Your task to perform on an android device: Open accessibility settings Image 0: 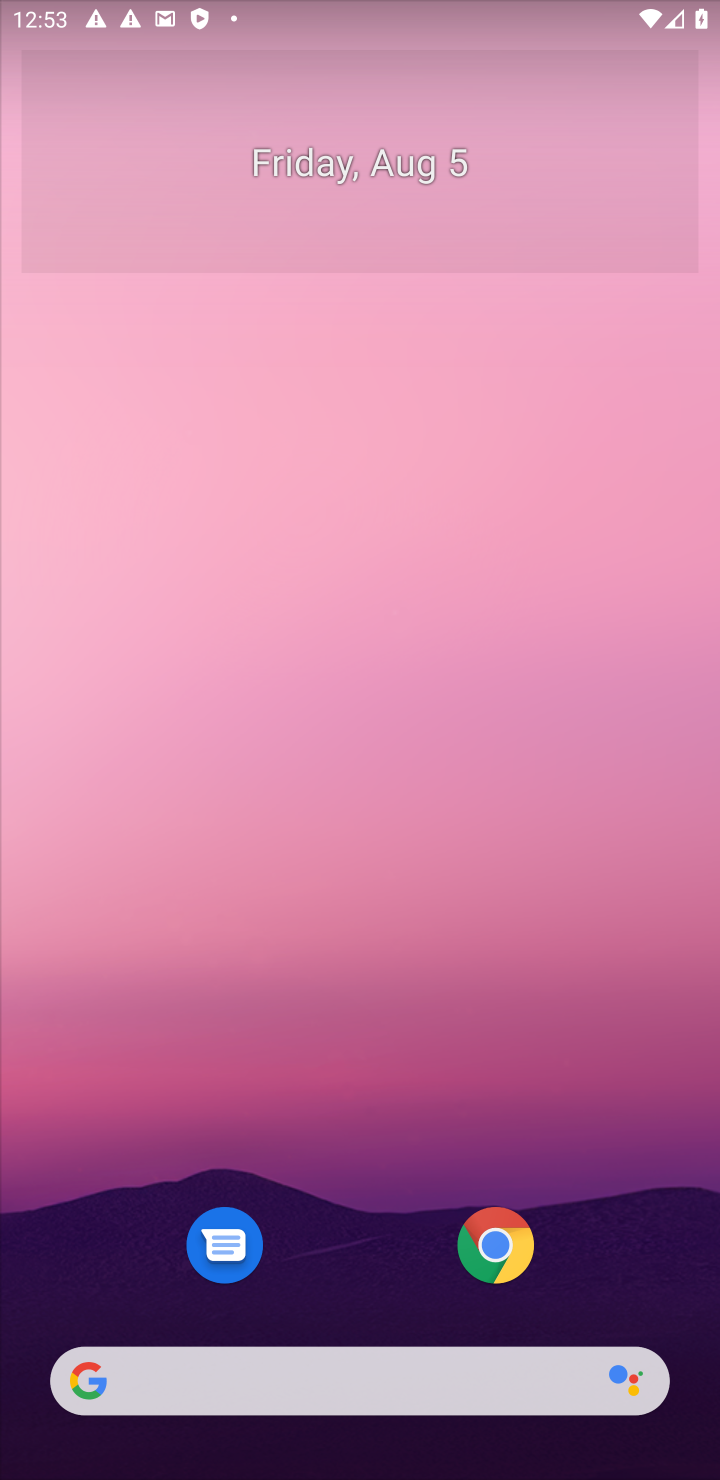
Step 0: drag from (367, 722) to (465, 170)
Your task to perform on an android device: Open accessibility settings Image 1: 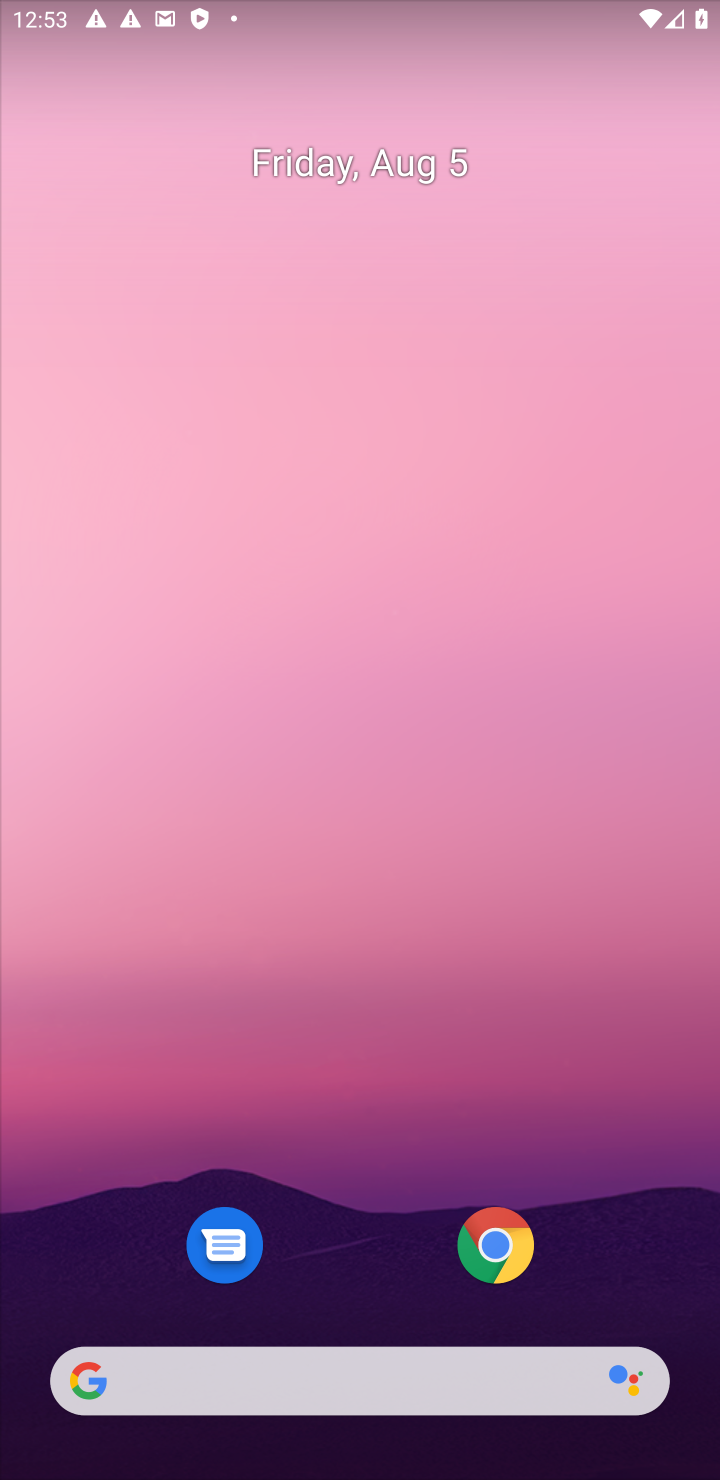
Step 1: drag from (413, 1272) to (367, 282)
Your task to perform on an android device: Open accessibility settings Image 2: 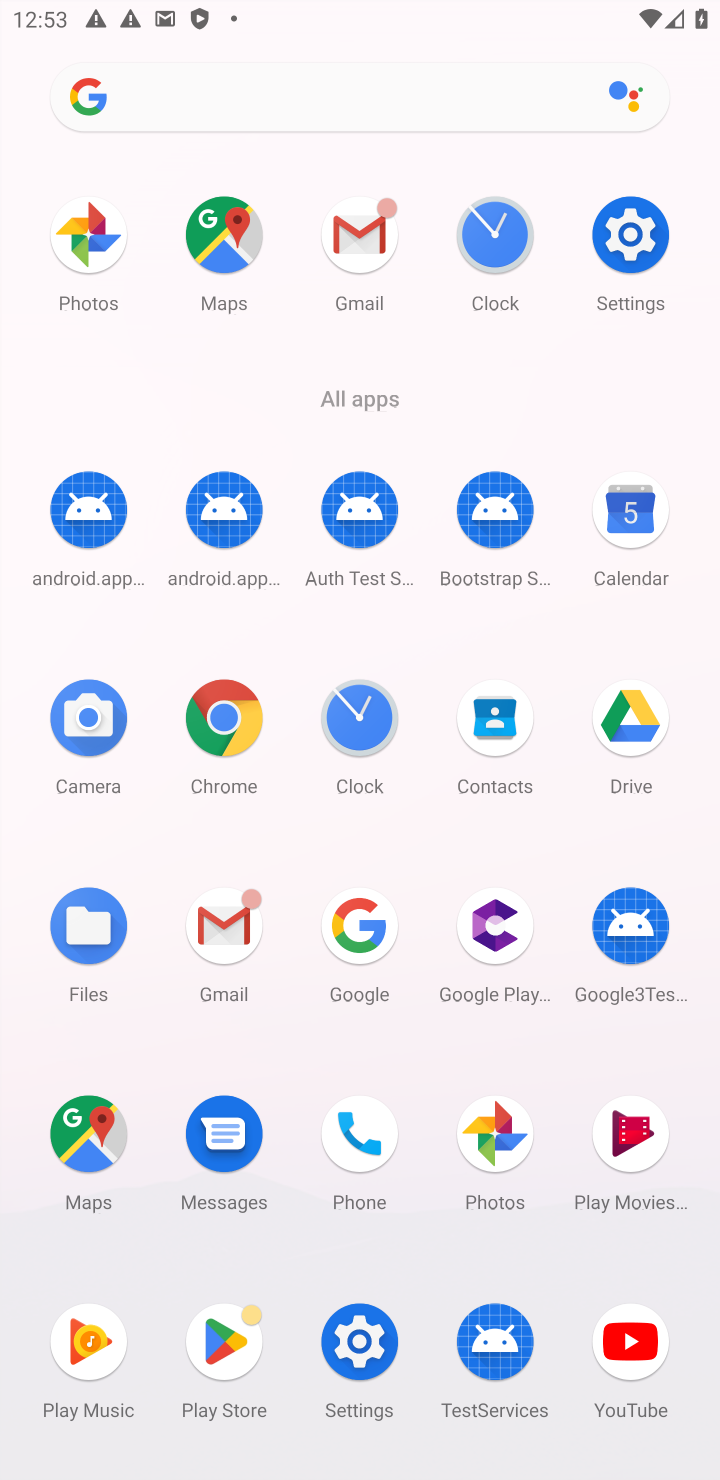
Step 2: click (635, 252)
Your task to perform on an android device: Open accessibility settings Image 3: 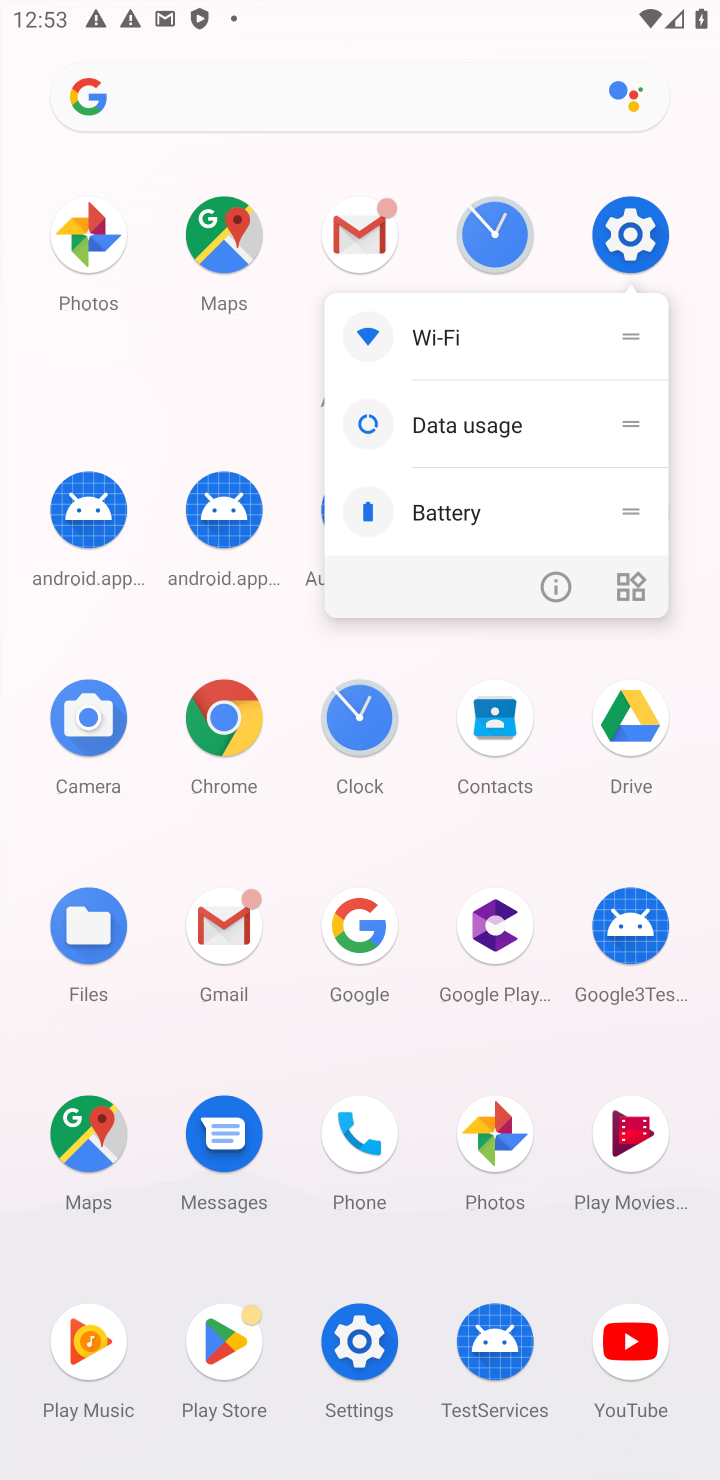
Step 3: click (625, 252)
Your task to perform on an android device: Open accessibility settings Image 4: 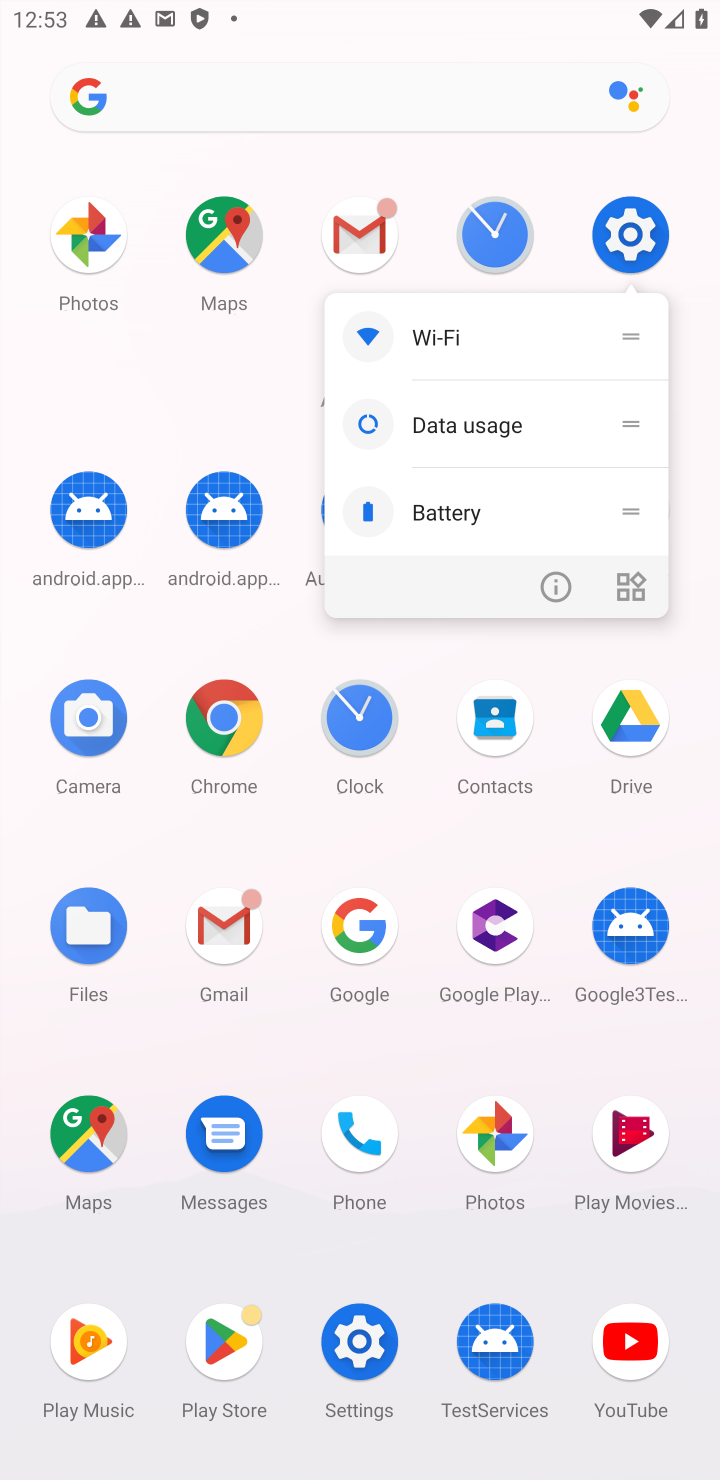
Step 4: click (614, 252)
Your task to perform on an android device: Open accessibility settings Image 5: 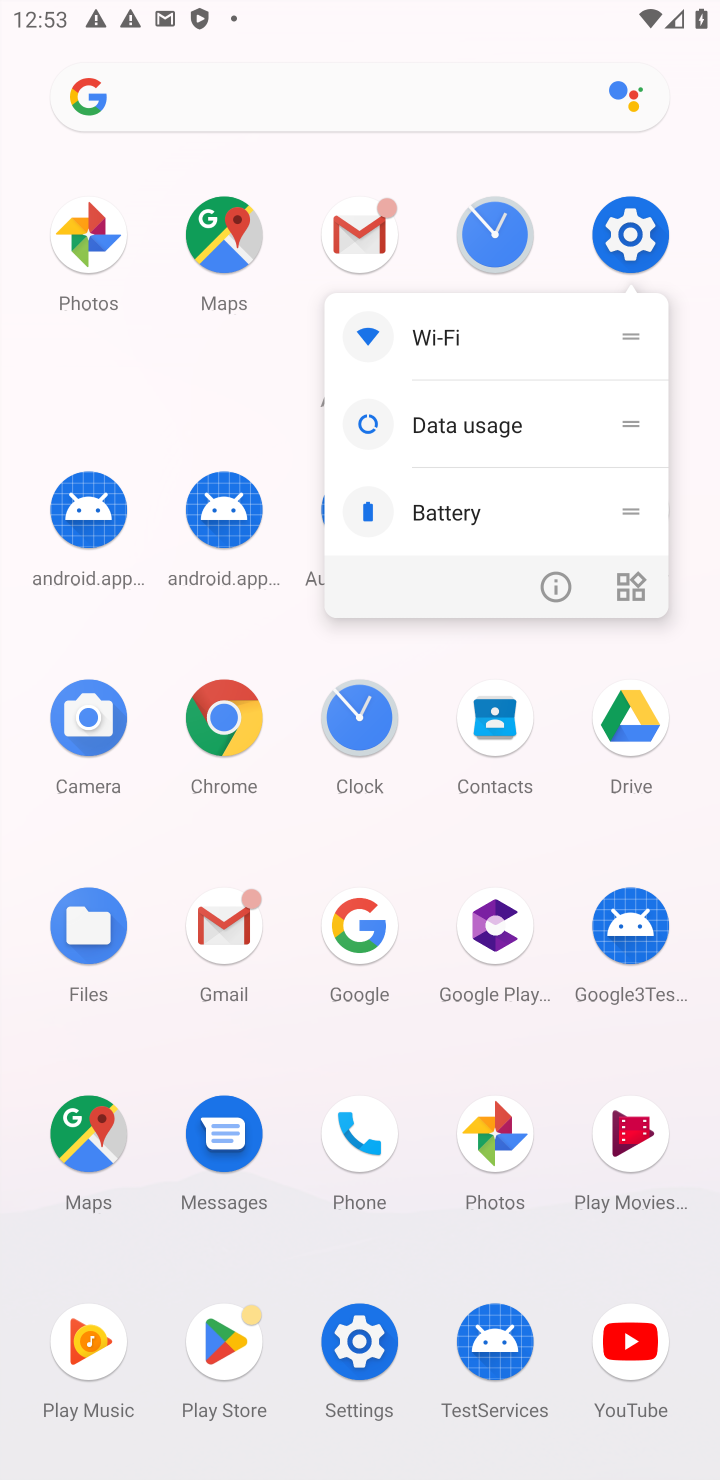
Step 5: click (614, 252)
Your task to perform on an android device: Open accessibility settings Image 6: 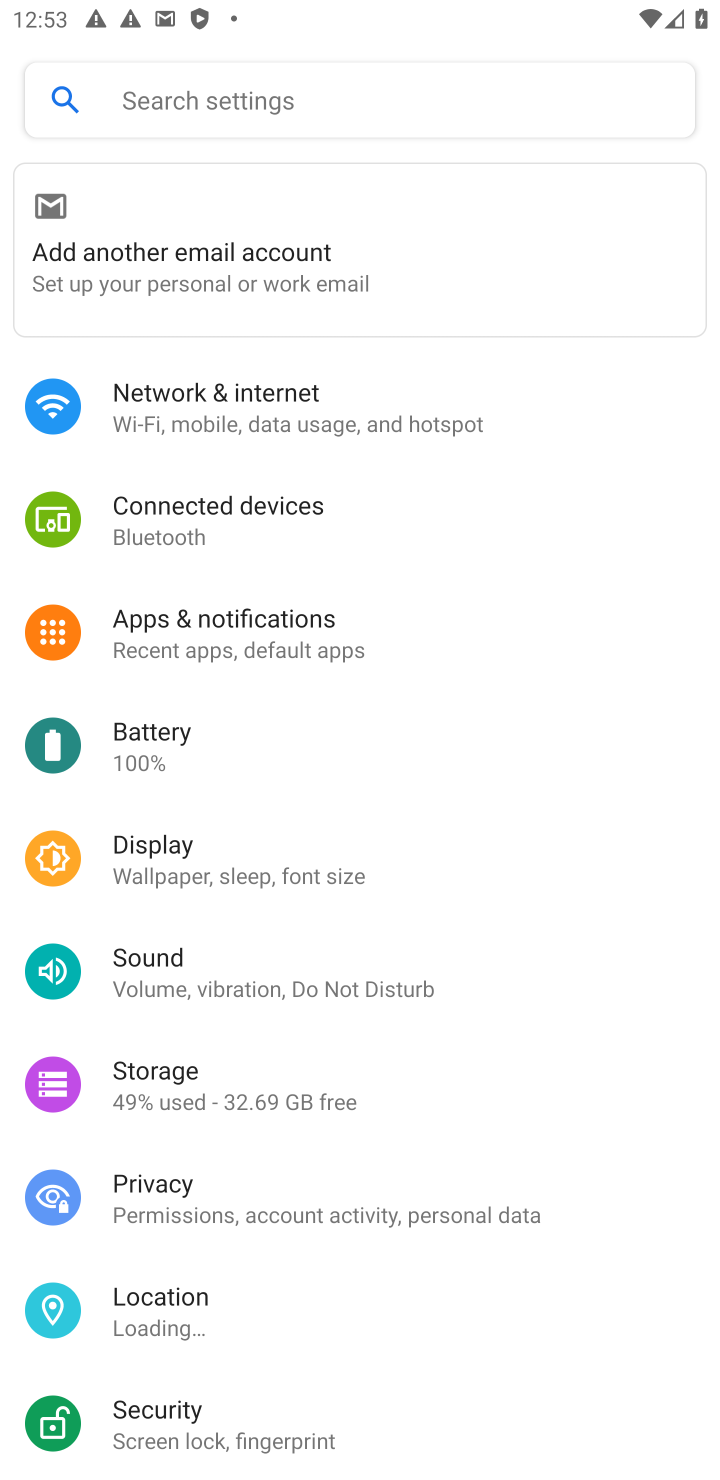
Step 6: drag from (470, 1274) to (442, 528)
Your task to perform on an android device: Open accessibility settings Image 7: 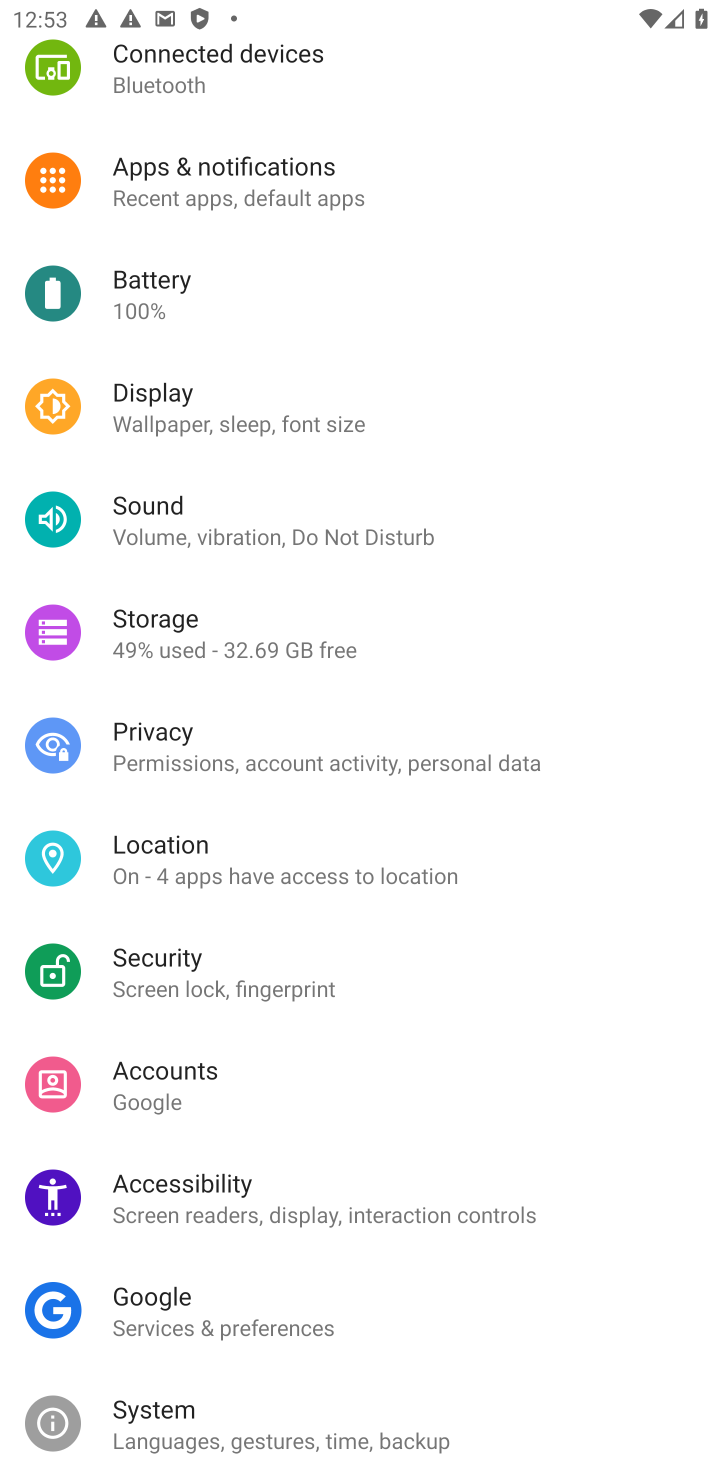
Step 7: click (177, 1206)
Your task to perform on an android device: Open accessibility settings Image 8: 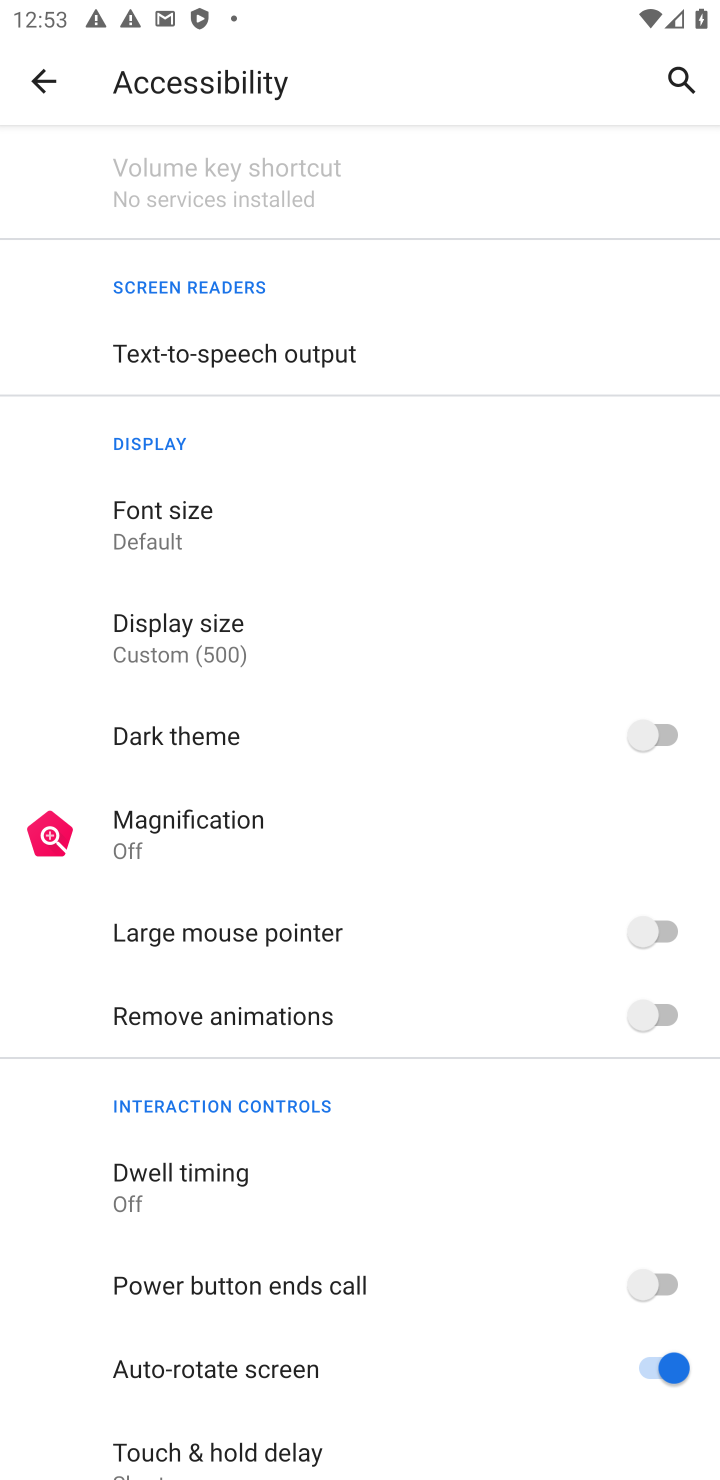
Step 8: task complete